Your task to perform on an android device: toggle data saver in the chrome app Image 0: 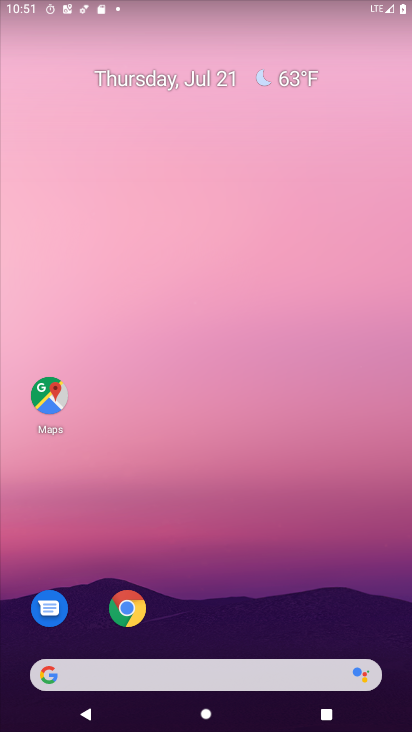
Step 0: click (407, 627)
Your task to perform on an android device: toggle data saver in the chrome app Image 1: 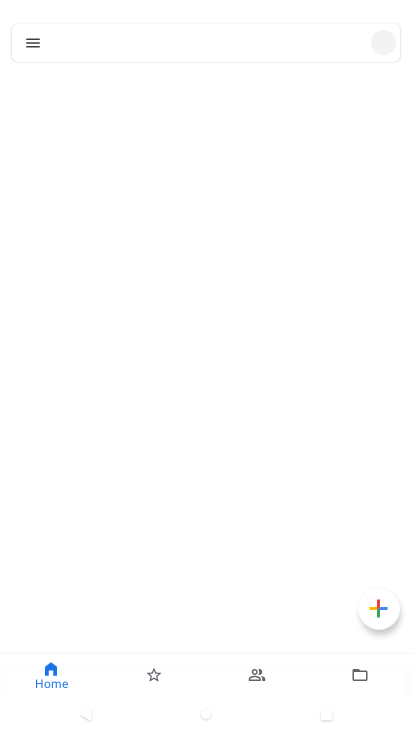
Step 1: drag from (193, 645) to (215, 200)
Your task to perform on an android device: toggle data saver in the chrome app Image 2: 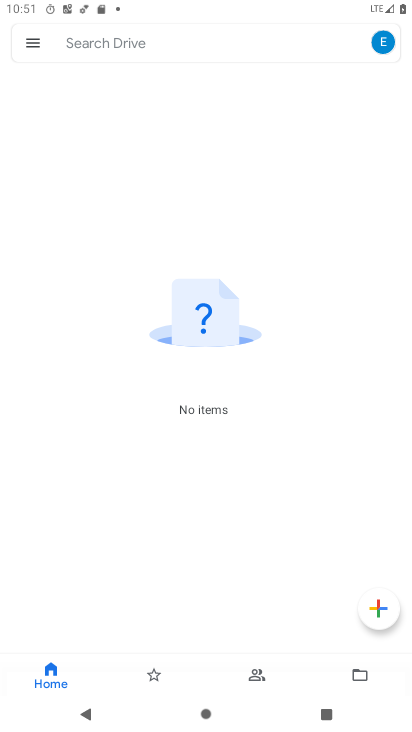
Step 2: press home button
Your task to perform on an android device: toggle data saver in the chrome app Image 3: 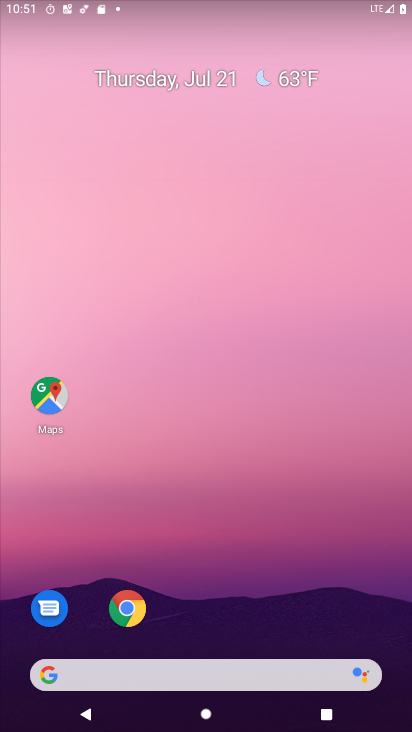
Step 3: drag from (215, 662) to (286, 48)
Your task to perform on an android device: toggle data saver in the chrome app Image 4: 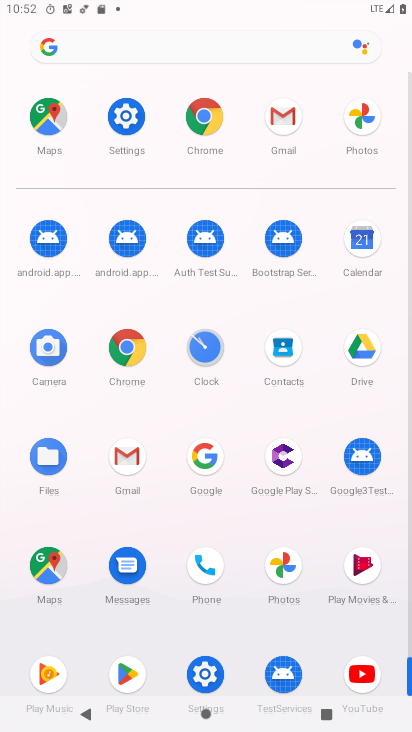
Step 4: click (208, 133)
Your task to perform on an android device: toggle data saver in the chrome app Image 5: 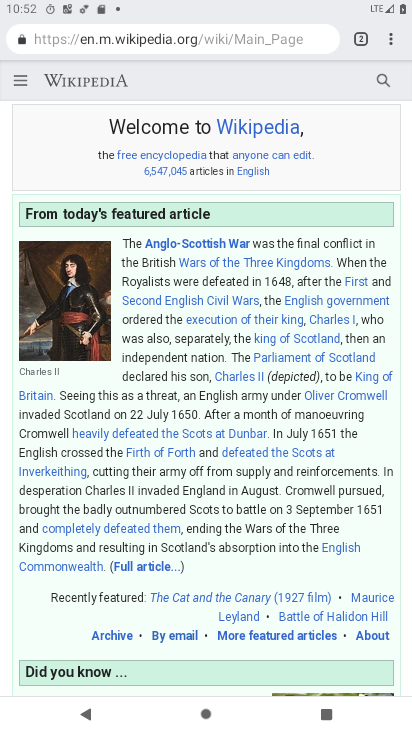
Step 5: click (394, 40)
Your task to perform on an android device: toggle data saver in the chrome app Image 6: 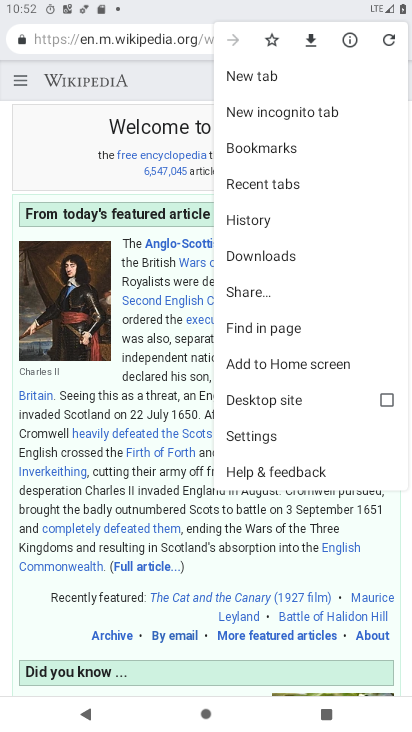
Step 6: click (242, 441)
Your task to perform on an android device: toggle data saver in the chrome app Image 7: 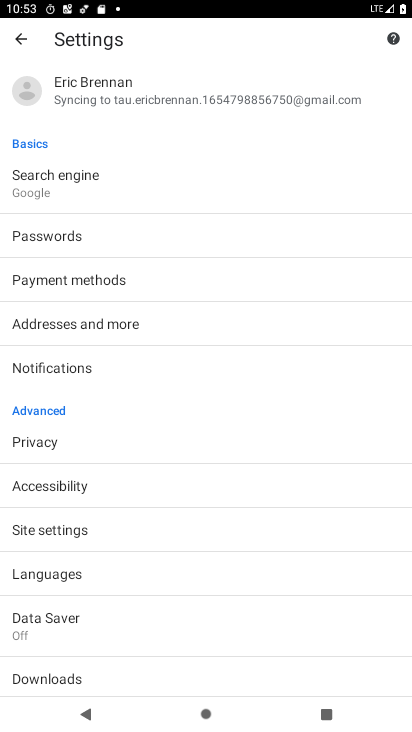
Step 7: drag from (112, 491) to (131, 645)
Your task to perform on an android device: toggle data saver in the chrome app Image 8: 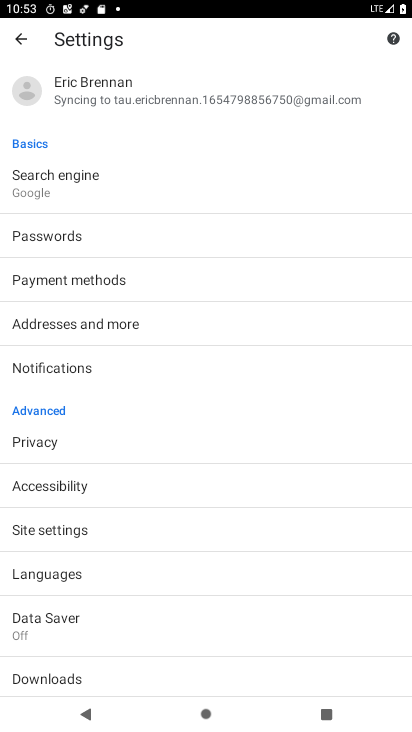
Step 8: click (100, 625)
Your task to perform on an android device: toggle data saver in the chrome app Image 9: 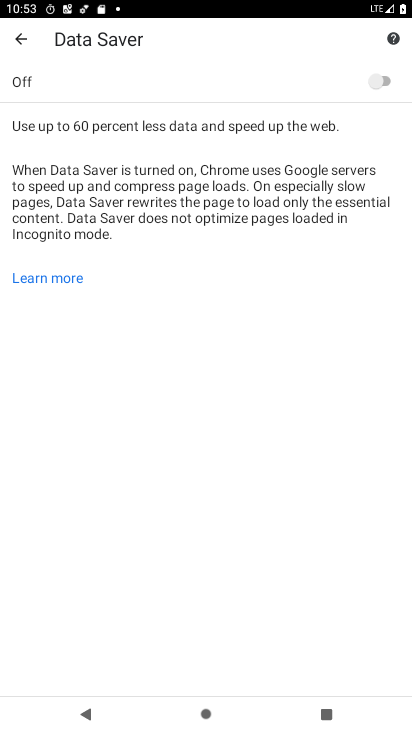
Step 9: click (384, 84)
Your task to perform on an android device: toggle data saver in the chrome app Image 10: 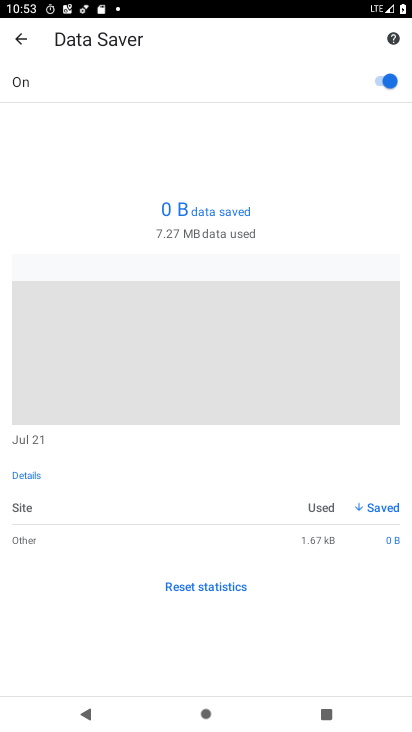
Step 10: task complete